Your task to perform on an android device: Open notification settings Image 0: 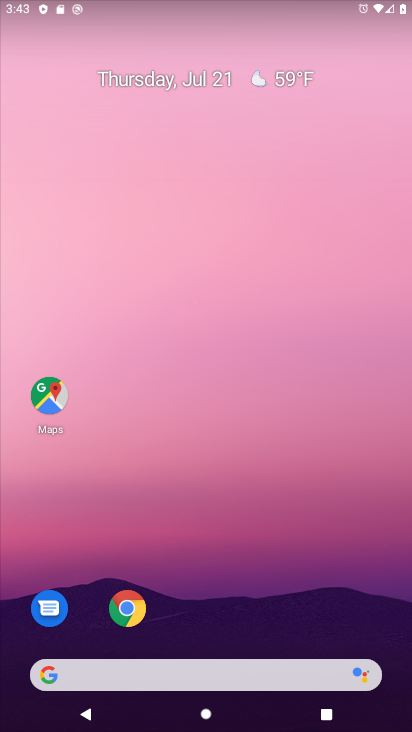
Step 0: drag from (286, 682) to (296, 7)
Your task to perform on an android device: Open notification settings Image 1: 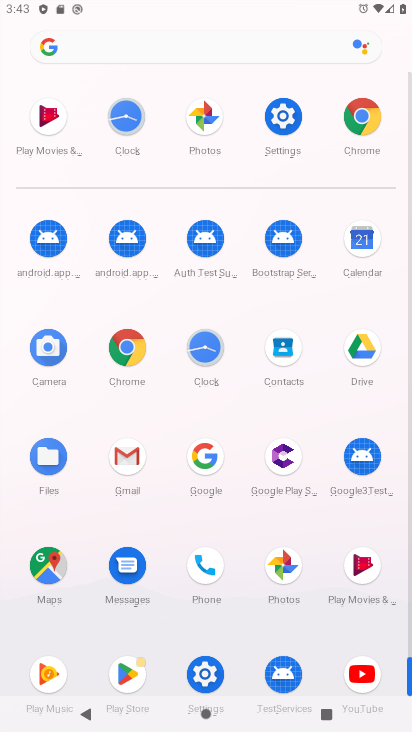
Step 1: click (287, 105)
Your task to perform on an android device: Open notification settings Image 2: 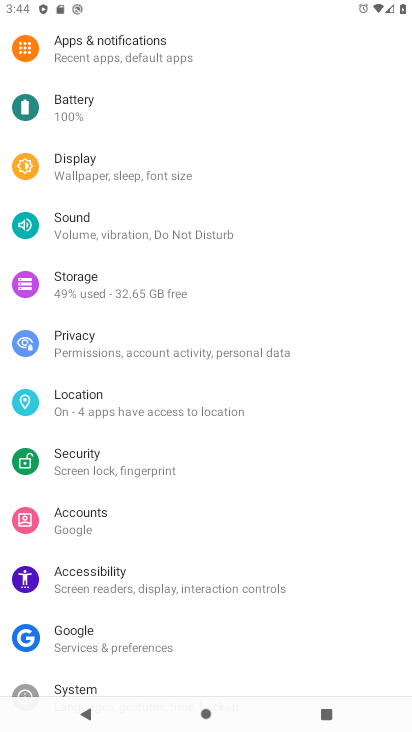
Step 2: click (164, 41)
Your task to perform on an android device: Open notification settings Image 3: 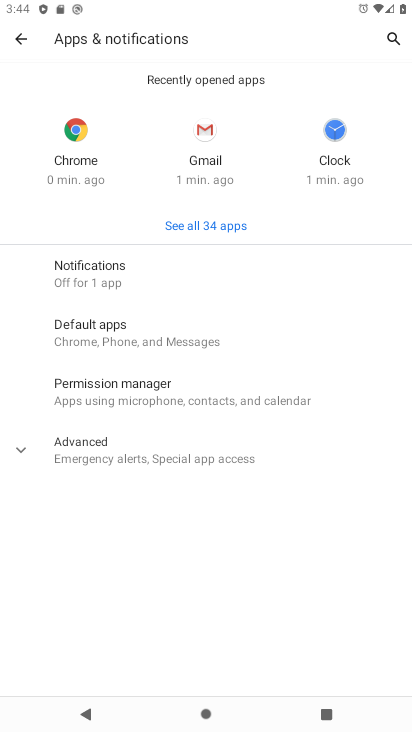
Step 3: click (115, 277)
Your task to perform on an android device: Open notification settings Image 4: 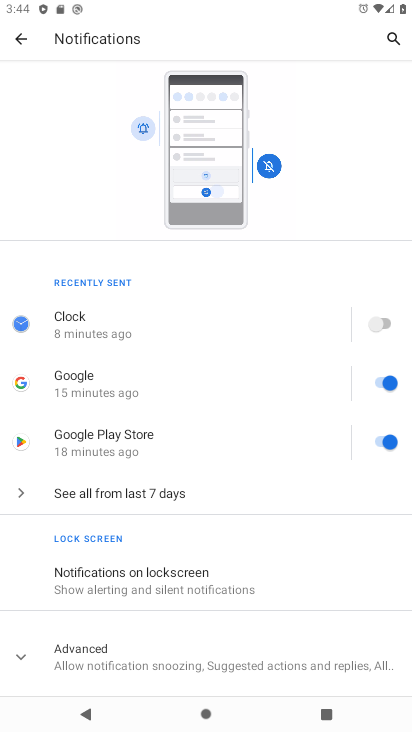
Step 4: drag from (219, 597) to (241, 363)
Your task to perform on an android device: Open notification settings Image 5: 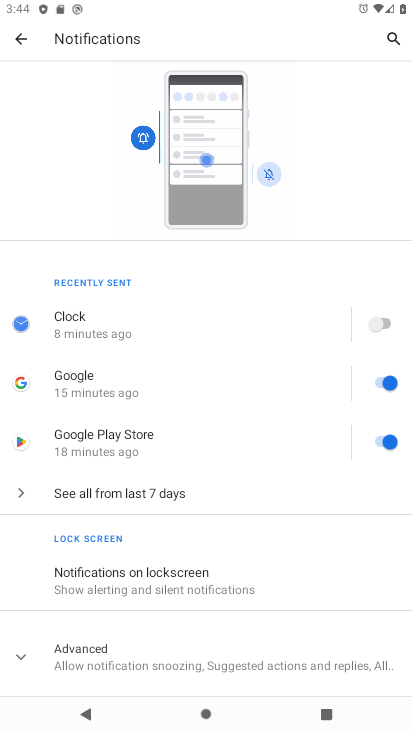
Step 5: click (149, 649)
Your task to perform on an android device: Open notification settings Image 6: 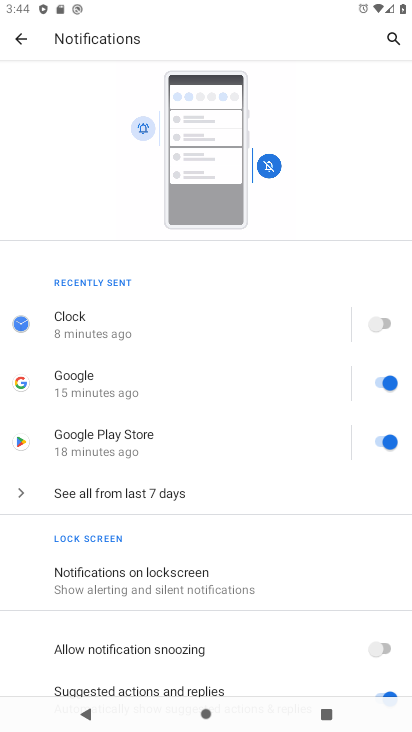
Step 6: click (373, 376)
Your task to perform on an android device: Open notification settings Image 7: 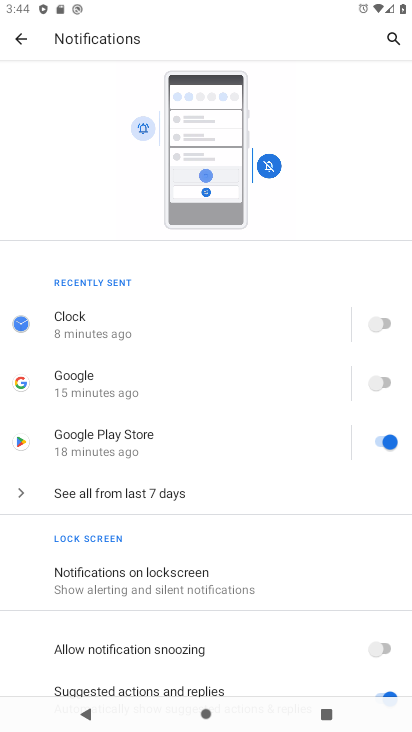
Step 7: task complete